Your task to perform on an android device: open chrome privacy settings Image 0: 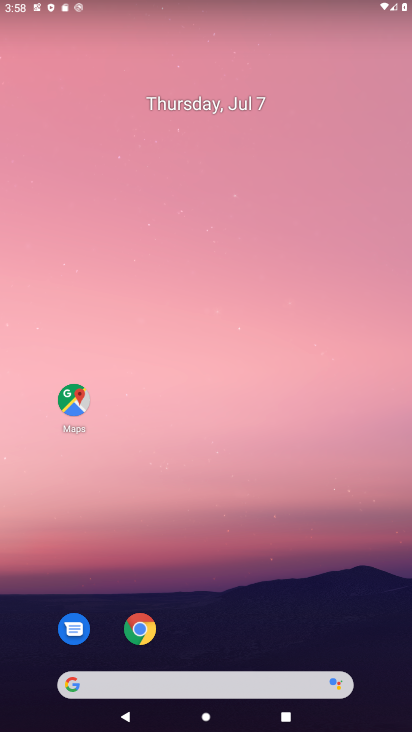
Step 0: drag from (261, 581) to (263, 197)
Your task to perform on an android device: open chrome privacy settings Image 1: 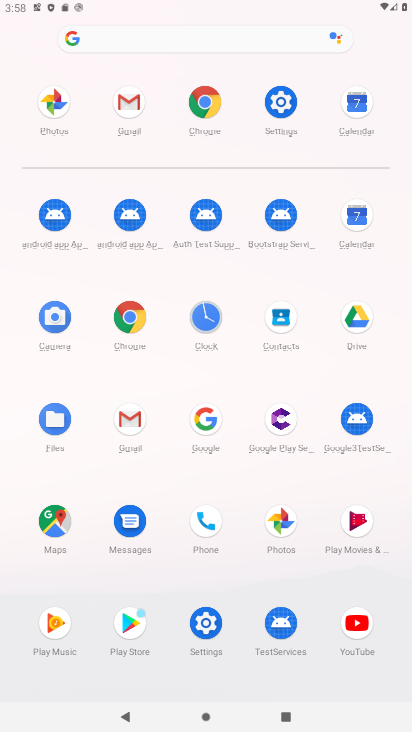
Step 1: click (269, 98)
Your task to perform on an android device: open chrome privacy settings Image 2: 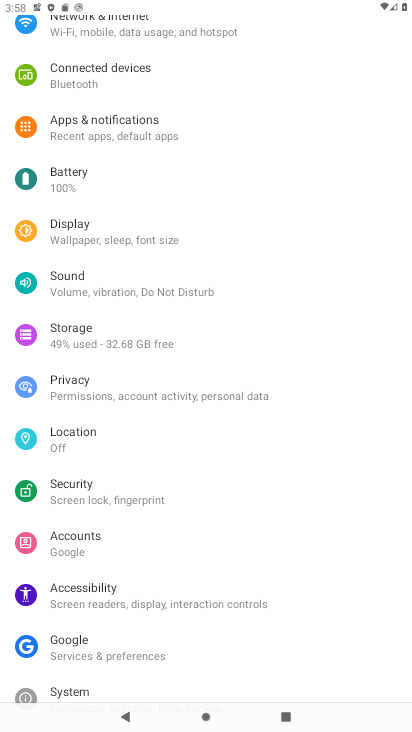
Step 2: click (110, 388)
Your task to perform on an android device: open chrome privacy settings Image 3: 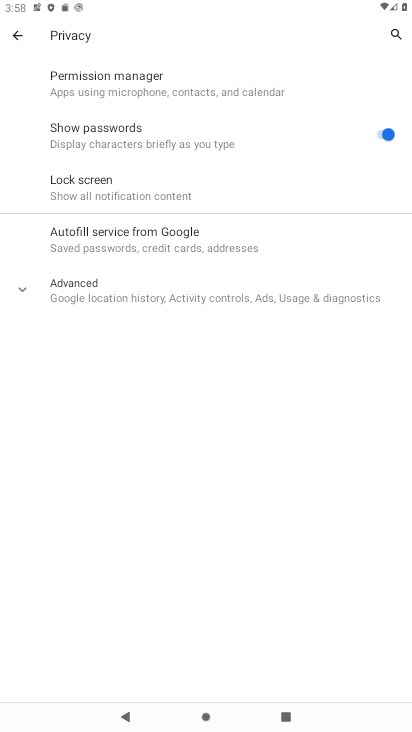
Step 3: press home button
Your task to perform on an android device: open chrome privacy settings Image 4: 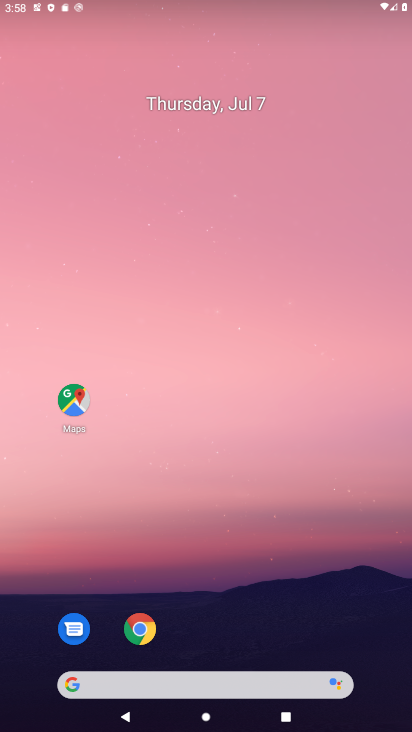
Step 4: drag from (217, 556) to (259, 149)
Your task to perform on an android device: open chrome privacy settings Image 5: 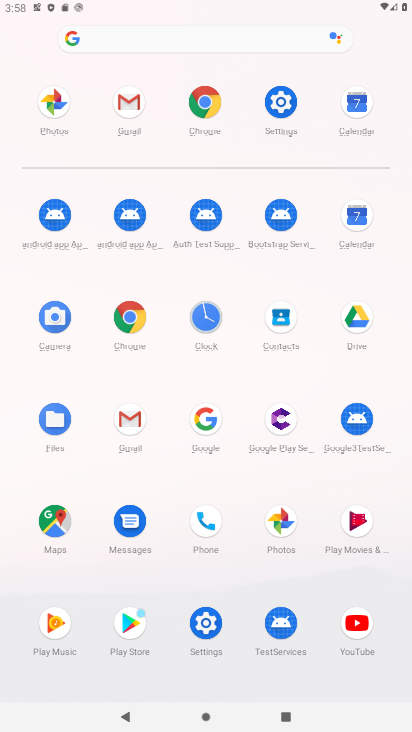
Step 5: click (187, 98)
Your task to perform on an android device: open chrome privacy settings Image 6: 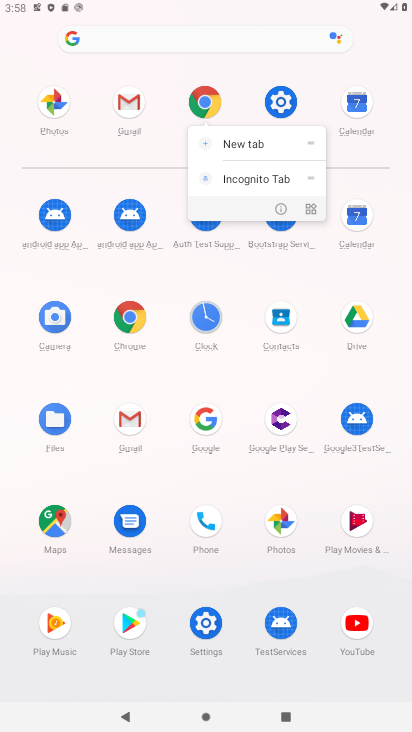
Step 6: click (210, 98)
Your task to perform on an android device: open chrome privacy settings Image 7: 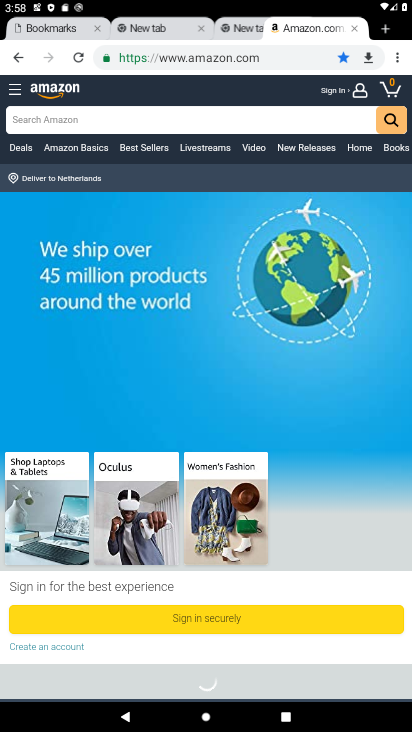
Step 7: click (397, 52)
Your task to perform on an android device: open chrome privacy settings Image 8: 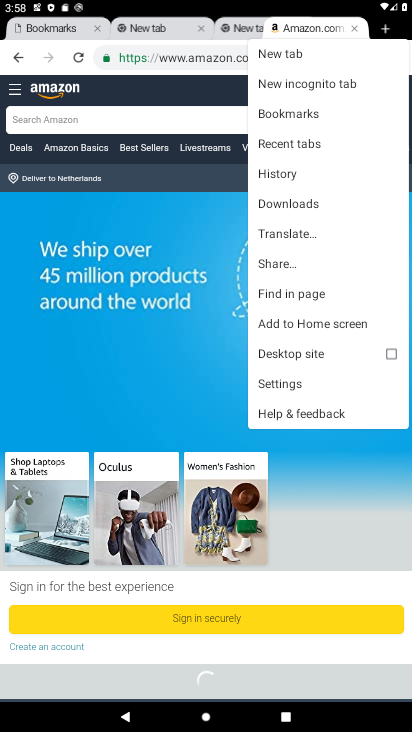
Step 8: click (294, 378)
Your task to perform on an android device: open chrome privacy settings Image 9: 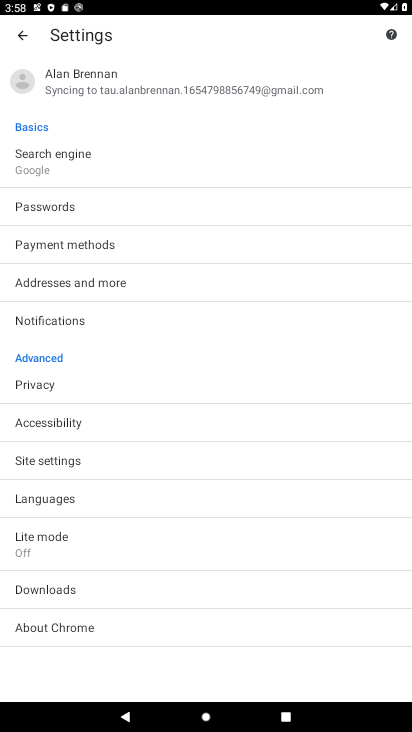
Step 9: click (80, 388)
Your task to perform on an android device: open chrome privacy settings Image 10: 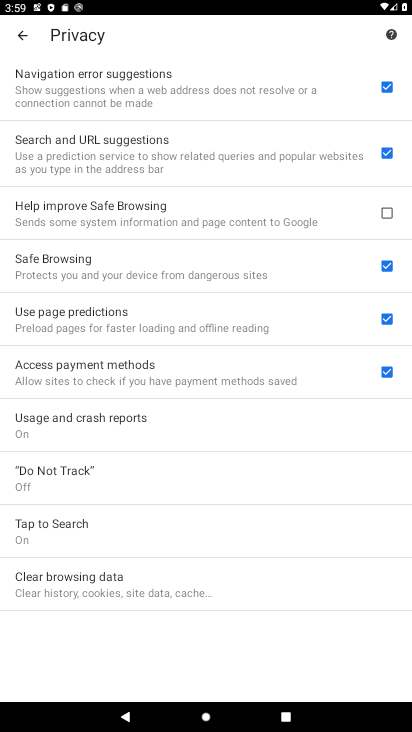
Step 10: task complete